Your task to perform on an android device: What's on my calendar tomorrow? Image 0: 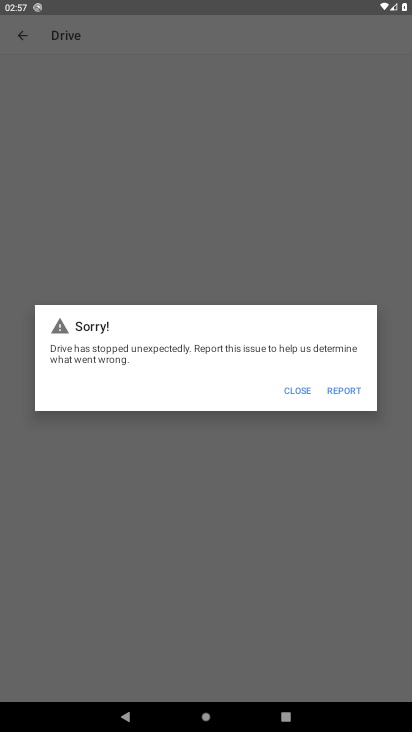
Step 0: press home button
Your task to perform on an android device: What's on my calendar tomorrow? Image 1: 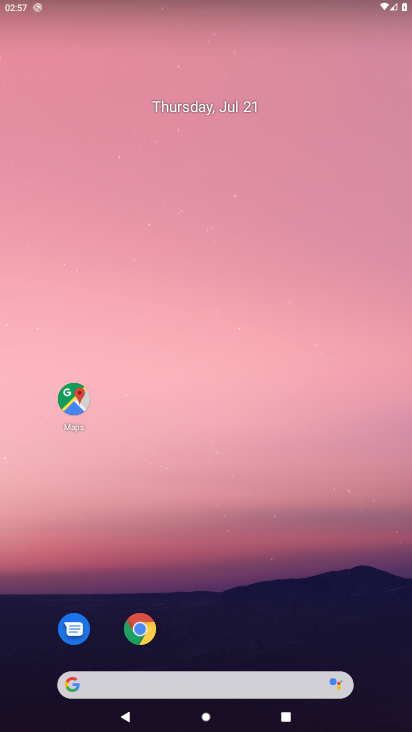
Step 1: drag from (39, 669) to (252, 81)
Your task to perform on an android device: What's on my calendar tomorrow? Image 2: 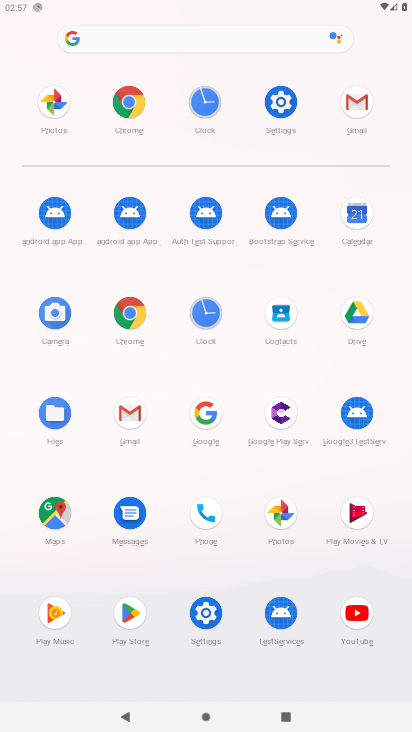
Step 2: click (346, 223)
Your task to perform on an android device: What's on my calendar tomorrow? Image 3: 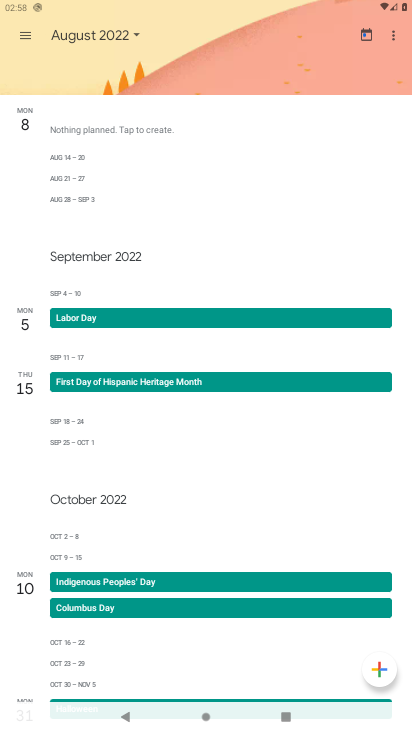
Step 3: click (83, 31)
Your task to perform on an android device: What's on my calendar tomorrow? Image 4: 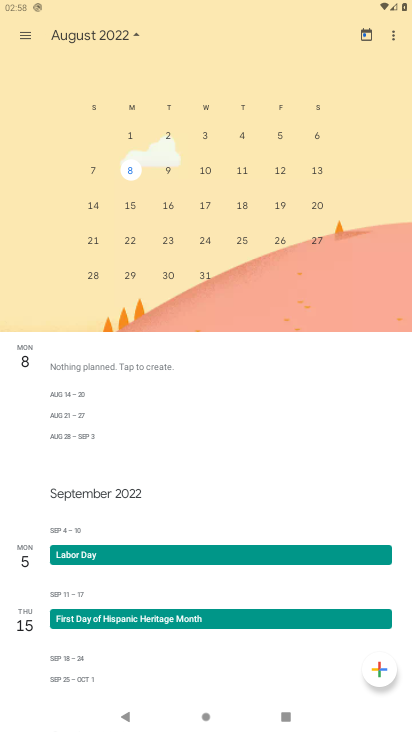
Step 4: task complete